Your task to perform on an android device: Do I have any events today? Image 0: 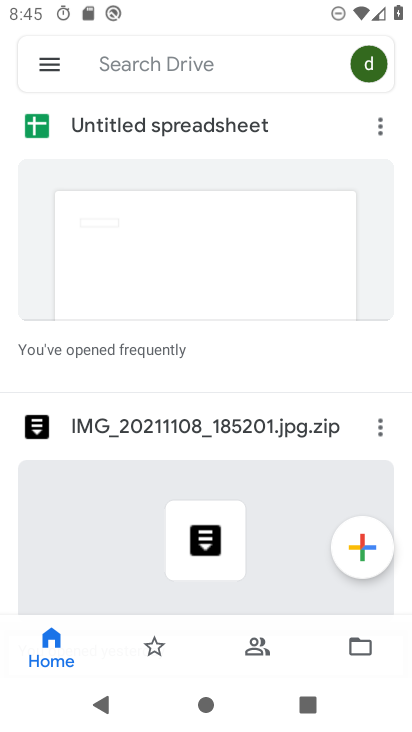
Step 0: press home button
Your task to perform on an android device: Do I have any events today? Image 1: 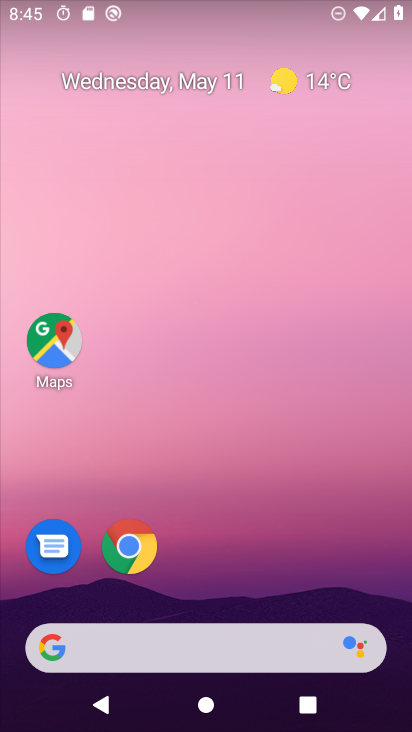
Step 1: drag from (186, 628) to (213, 31)
Your task to perform on an android device: Do I have any events today? Image 2: 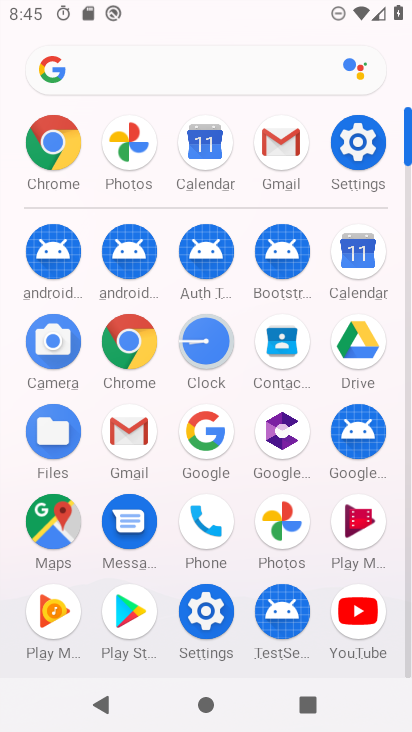
Step 2: click (359, 257)
Your task to perform on an android device: Do I have any events today? Image 3: 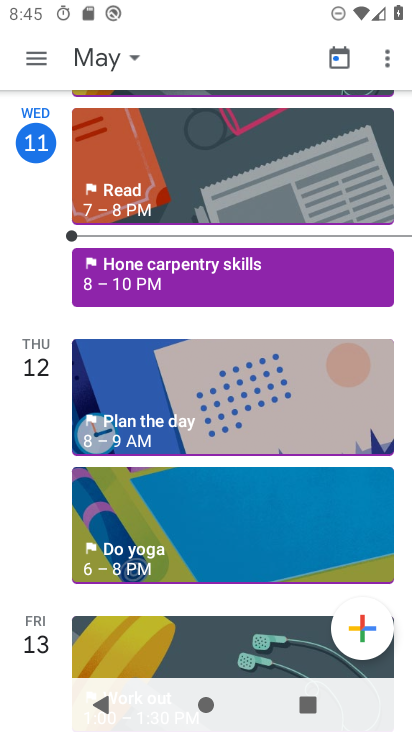
Step 3: task complete